Your task to perform on an android device: remove spam from my inbox in the gmail app Image 0: 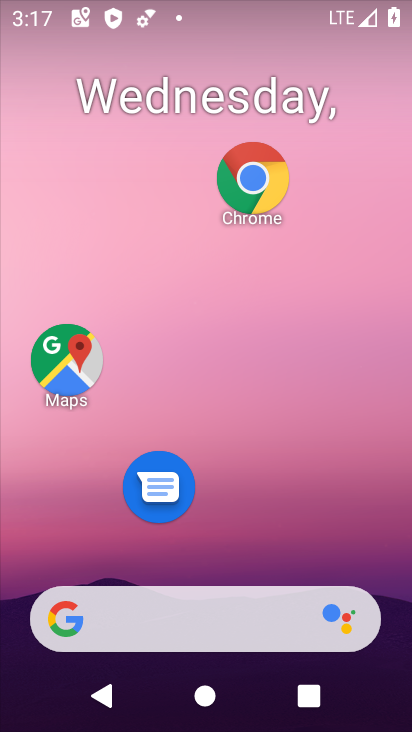
Step 0: drag from (242, 551) to (319, 92)
Your task to perform on an android device: remove spam from my inbox in the gmail app Image 1: 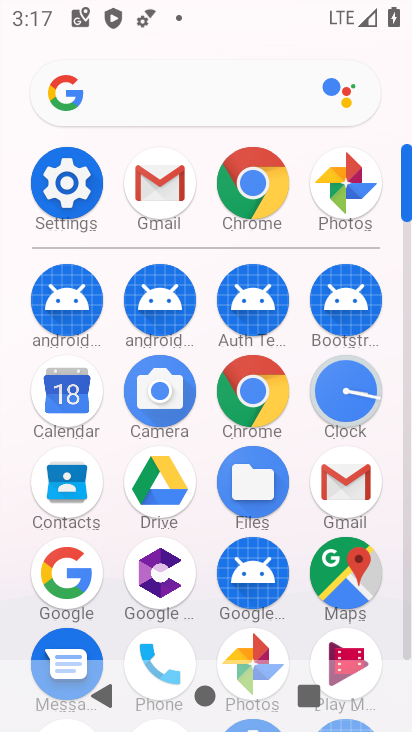
Step 1: click (328, 486)
Your task to perform on an android device: remove spam from my inbox in the gmail app Image 2: 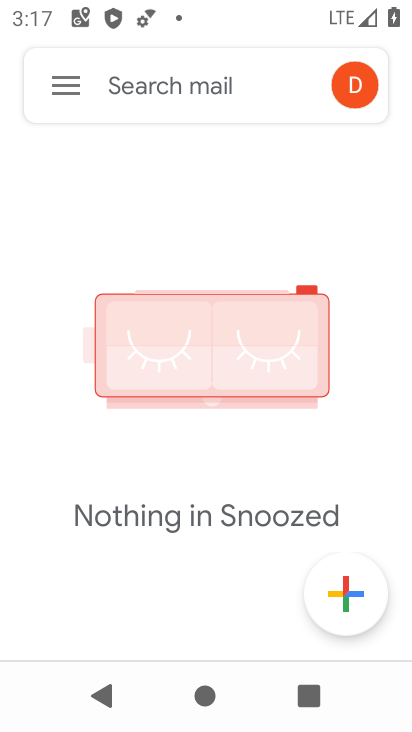
Step 2: click (65, 92)
Your task to perform on an android device: remove spam from my inbox in the gmail app Image 3: 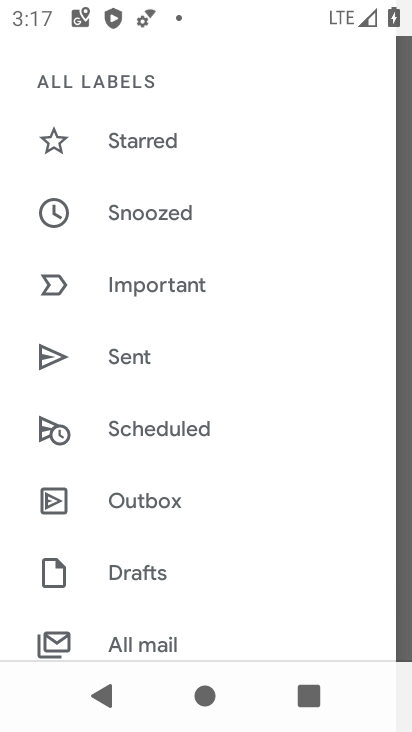
Step 3: drag from (162, 587) to (217, 402)
Your task to perform on an android device: remove spam from my inbox in the gmail app Image 4: 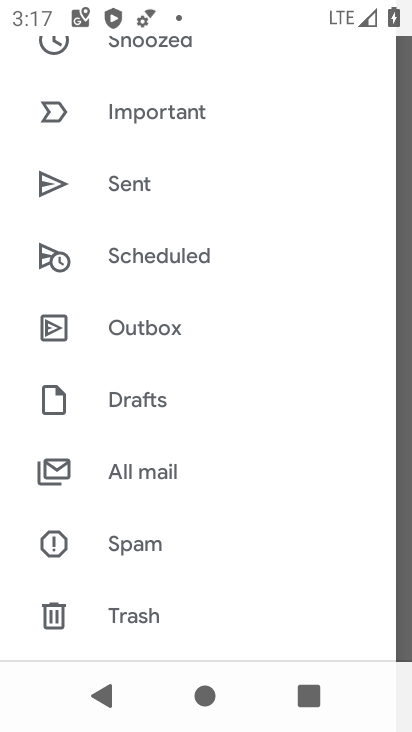
Step 4: click (204, 543)
Your task to perform on an android device: remove spam from my inbox in the gmail app Image 5: 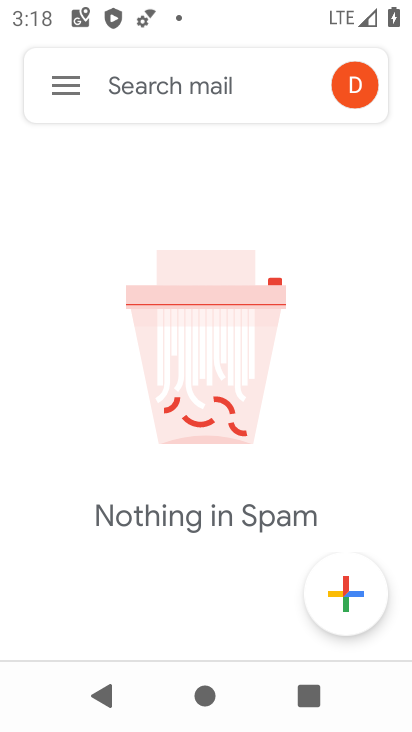
Step 5: task complete